Your task to perform on an android device: Check the news Image 0: 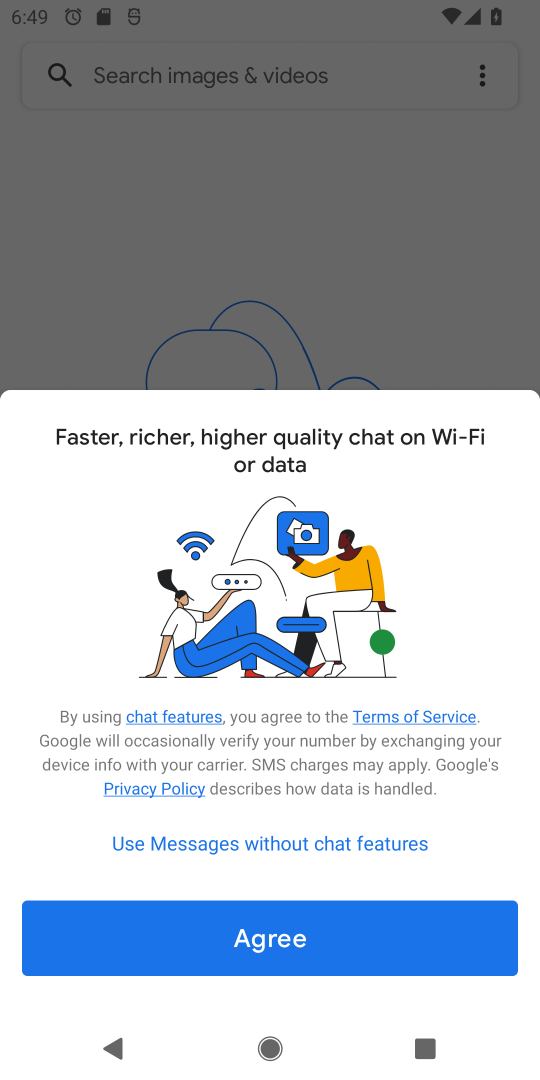
Step 0: press home button
Your task to perform on an android device: Check the news Image 1: 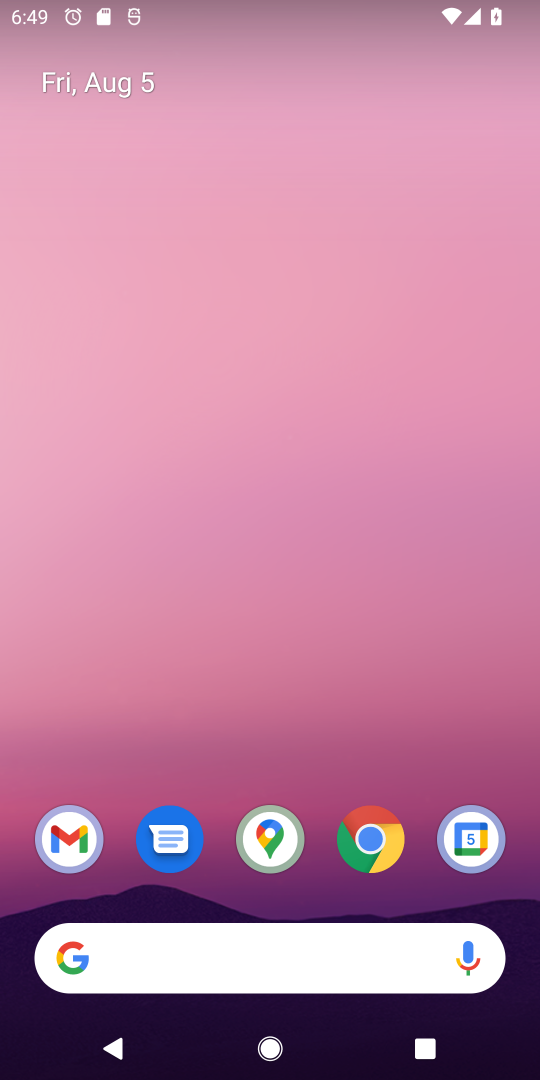
Step 1: drag from (251, 760) to (264, 48)
Your task to perform on an android device: Check the news Image 2: 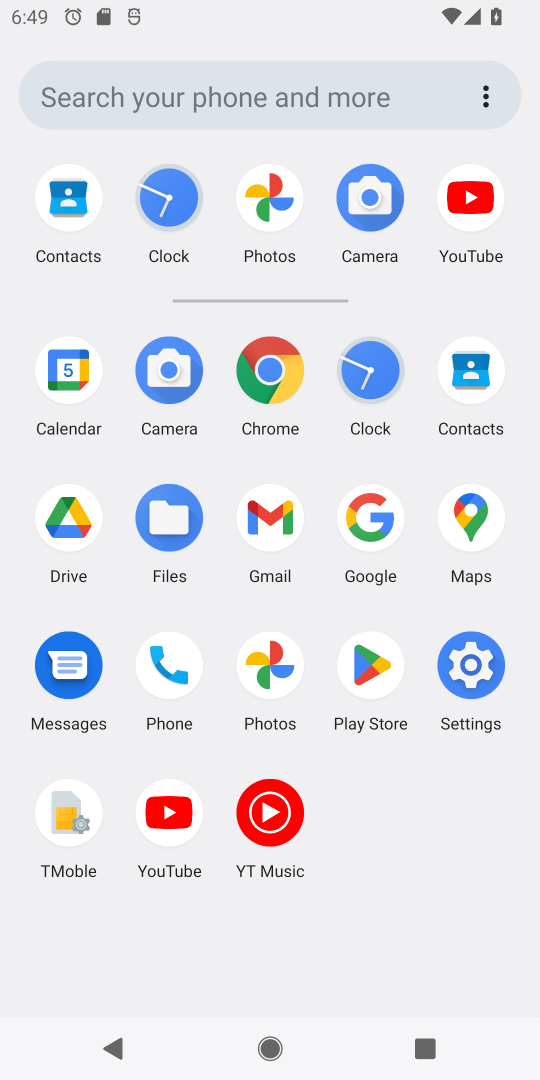
Step 2: click (356, 526)
Your task to perform on an android device: Check the news Image 3: 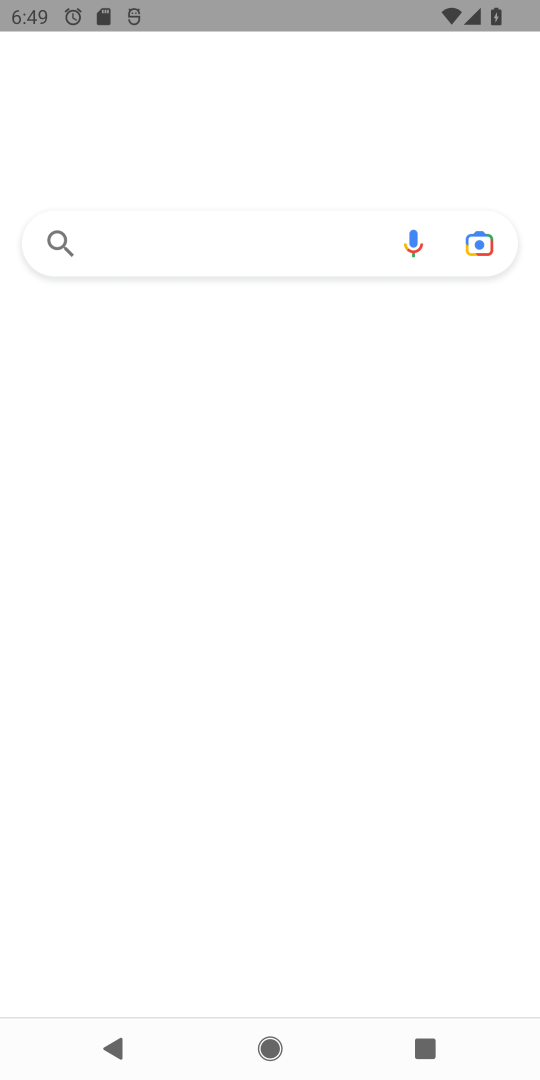
Step 3: click (271, 250)
Your task to perform on an android device: Check the news Image 4: 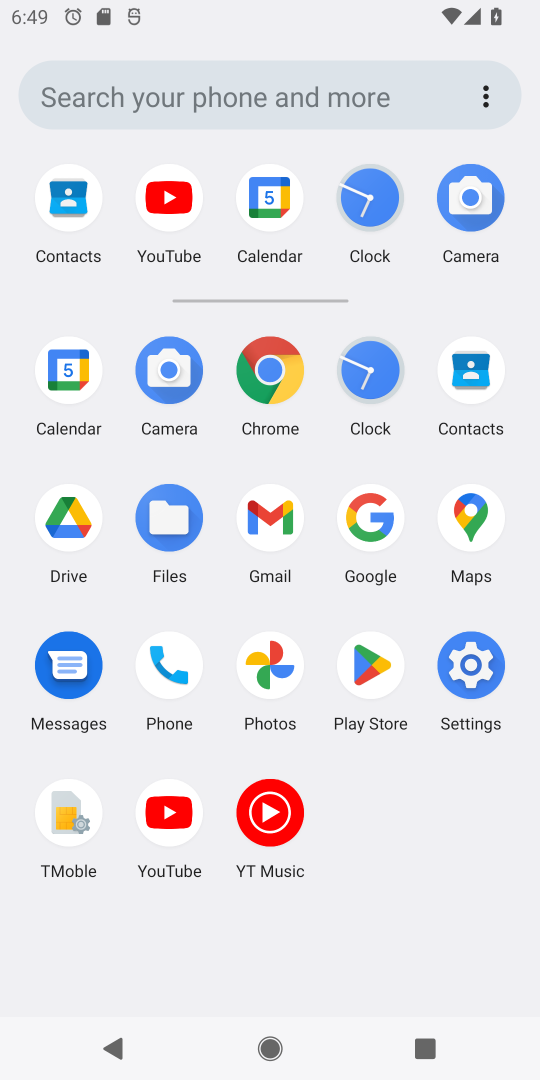
Step 4: click (378, 516)
Your task to perform on an android device: Check the news Image 5: 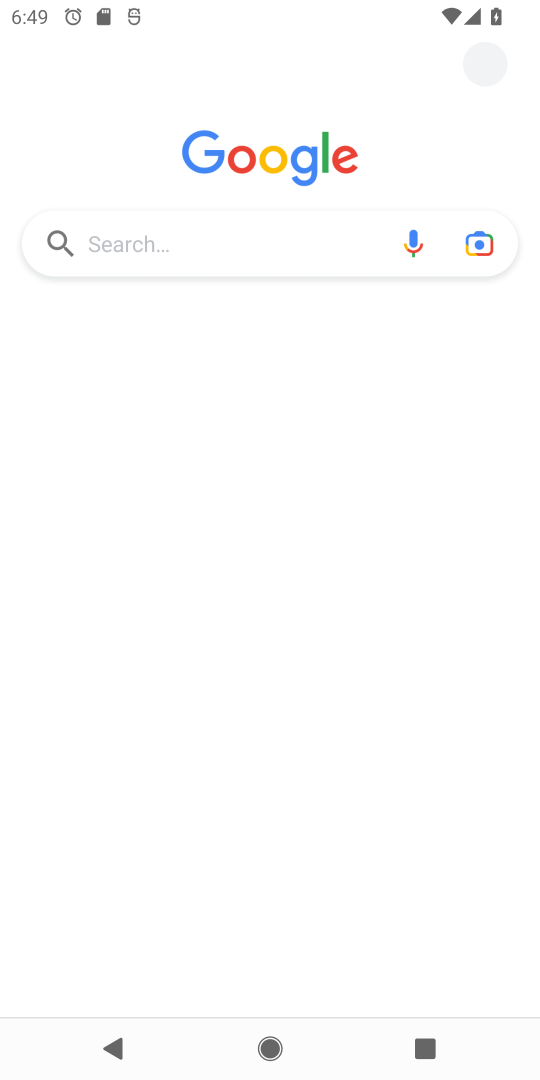
Step 5: click (167, 251)
Your task to perform on an android device: Check the news Image 6: 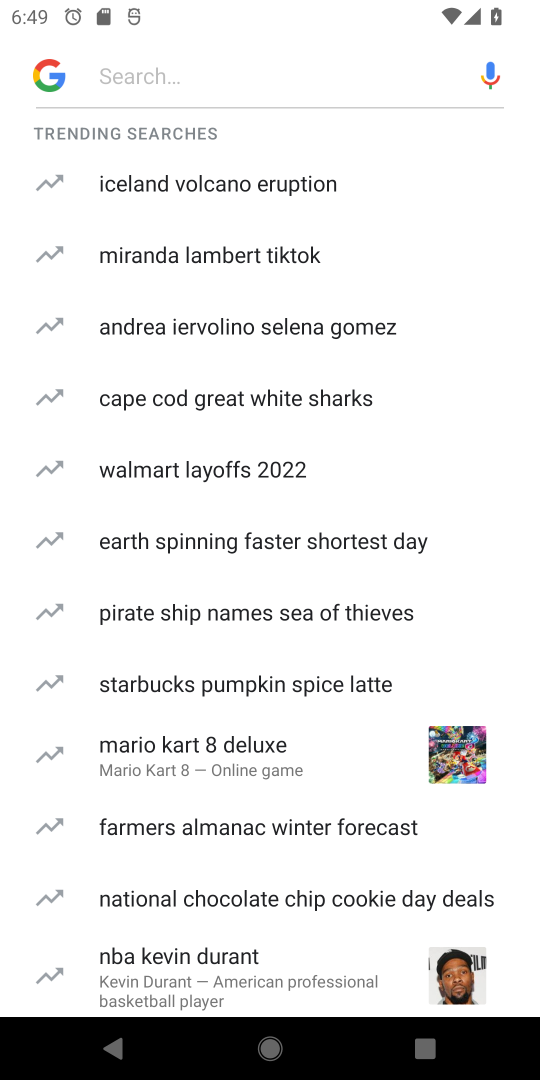
Step 6: type "news"
Your task to perform on an android device: Check the news Image 7: 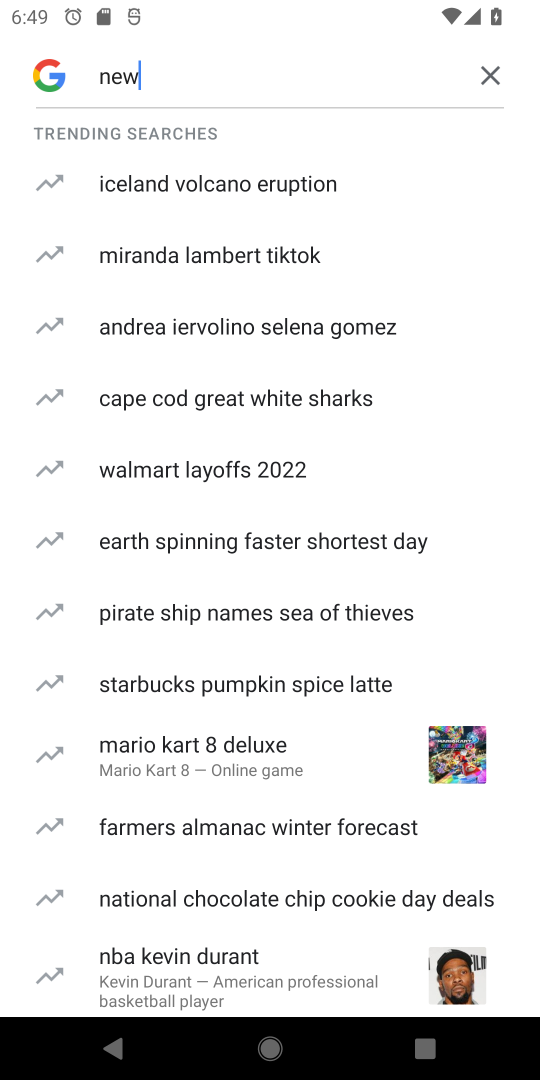
Step 7: type ""
Your task to perform on an android device: Check the news Image 8: 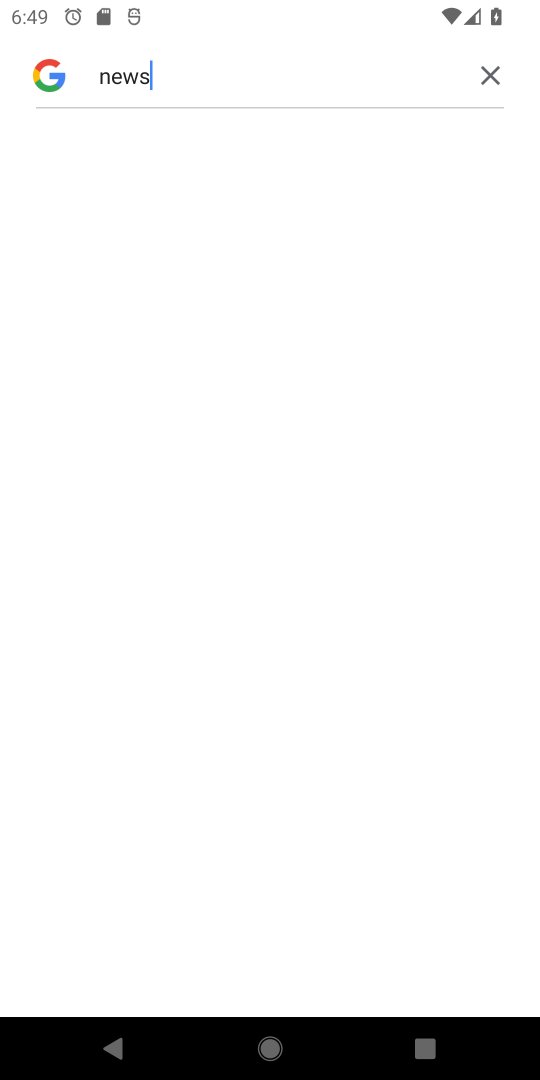
Step 8: task complete